Your task to perform on an android device: Open Yahoo.com Image 0: 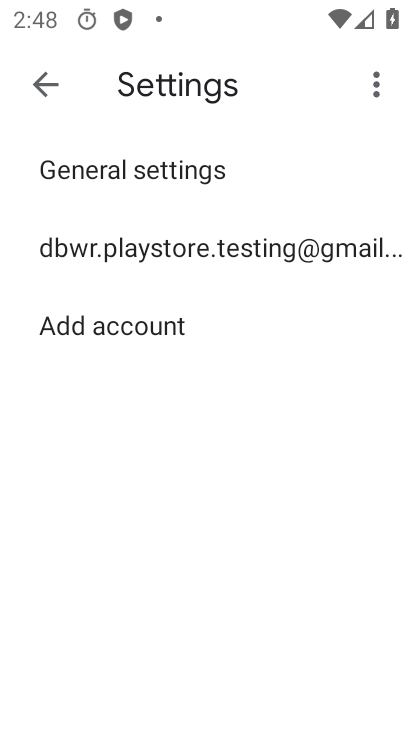
Step 0: press home button
Your task to perform on an android device: Open Yahoo.com Image 1: 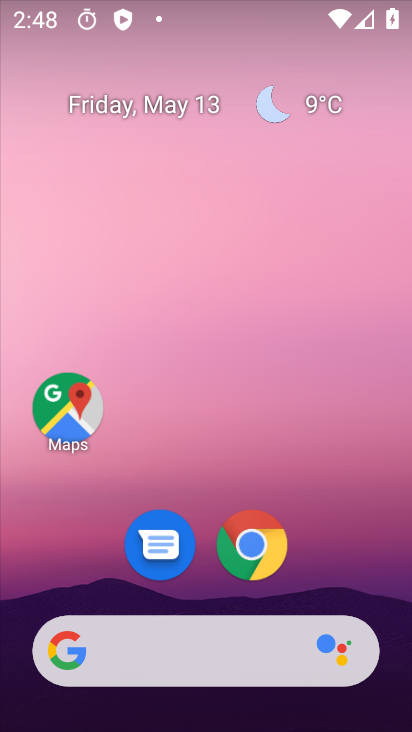
Step 1: click (243, 557)
Your task to perform on an android device: Open Yahoo.com Image 2: 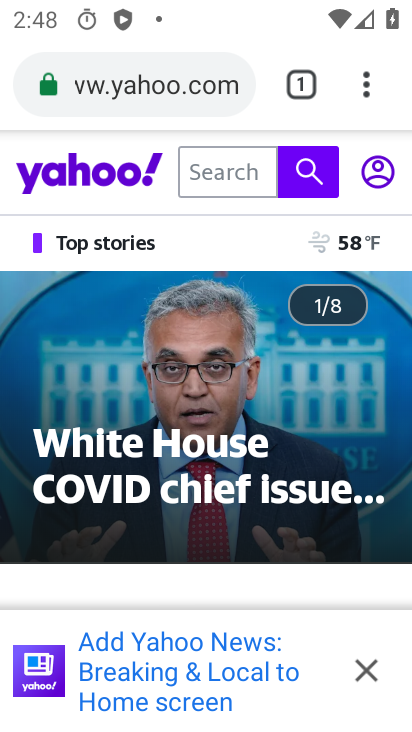
Step 2: click (366, 91)
Your task to perform on an android device: Open Yahoo.com Image 3: 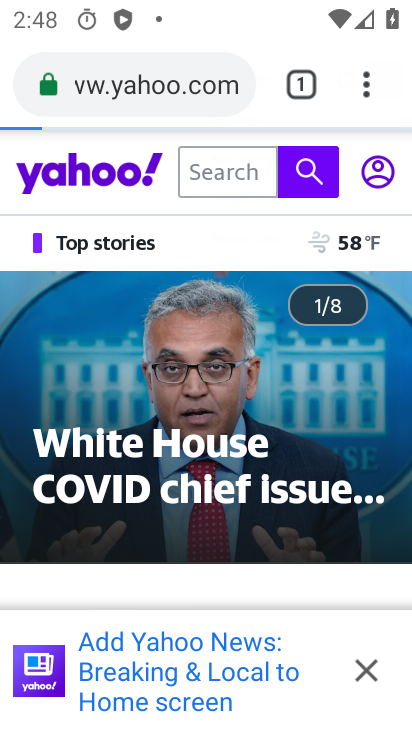
Step 3: click (284, 123)
Your task to perform on an android device: Open Yahoo.com Image 4: 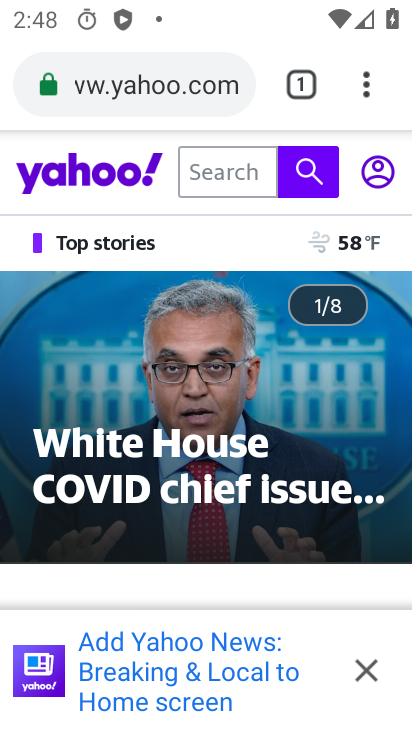
Step 4: click (226, 77)
Your task to perform on an android device: Open Yahoo.com Image 5: 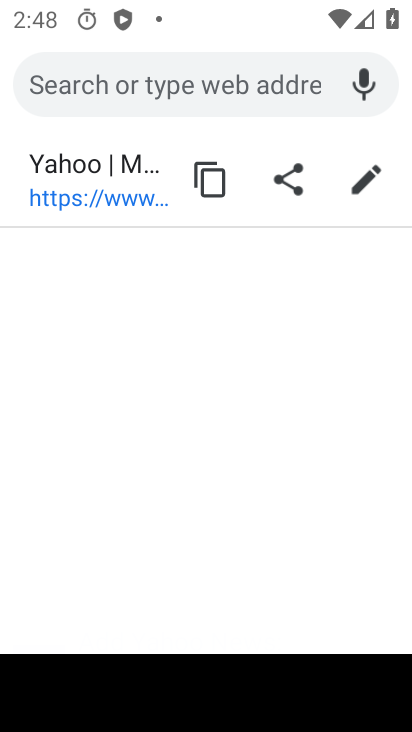
Step 5: type " Yahoo.com"
Your task to perform on an android device: Open Yahoo.com Image 6: 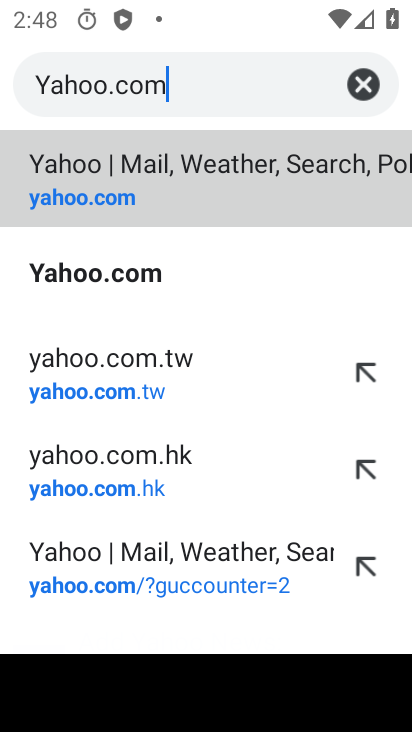
Step 6: click (78, 192)
Your task to perform on an android device: Open Yahoo.com Image 7: 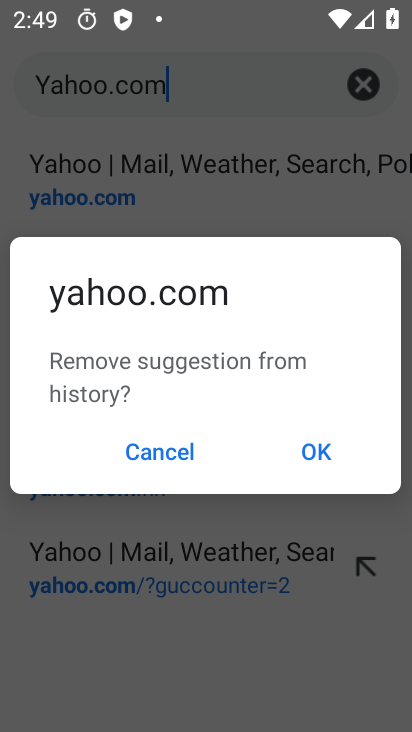
Step 7: click (301, 446)
Your task to perform on an android device: Open Yahoo.com Image 8: 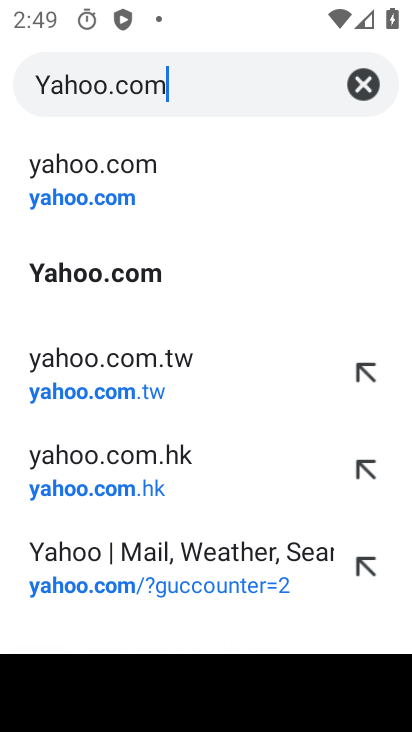
Step 8: click (98, 189)
Your task to perform on an android device: Open Yahoo.com Image 9: 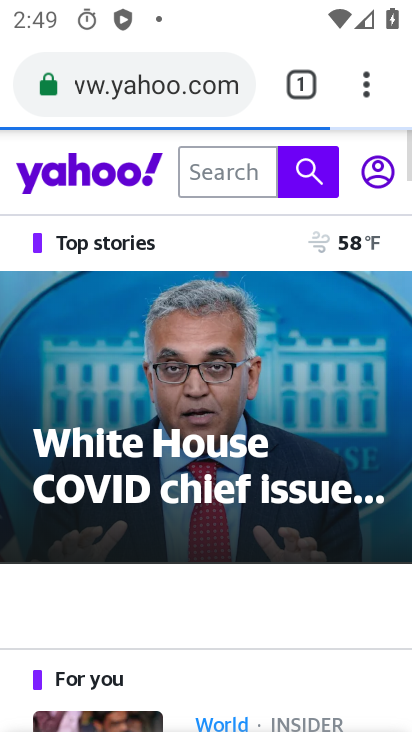
Step 9: task complete